Your task to perform on an android device: stop showing notifications on the lock screen Image 0: 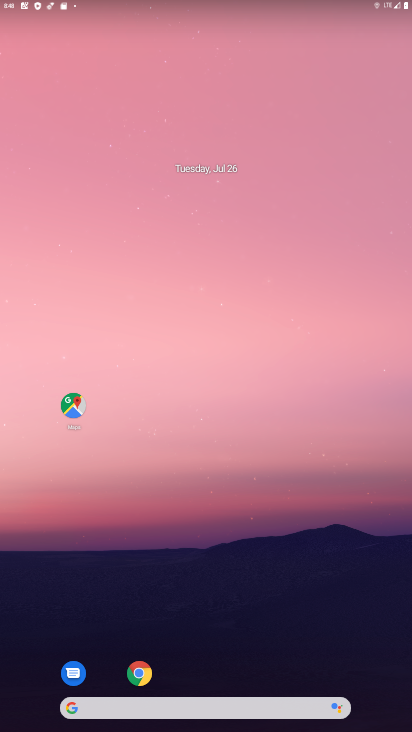
Step 0: drag from (204, 685) to (192, 11)
Your task to perform on an android device: stop showing notifications on the lock screen Image 1: 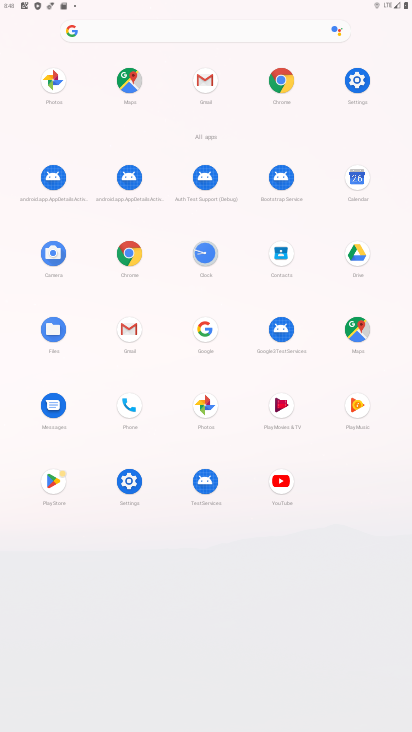
Step 1: click (365, 84)
Your task to perform on an android device: stop showing notifications on the lock screen Image 2: 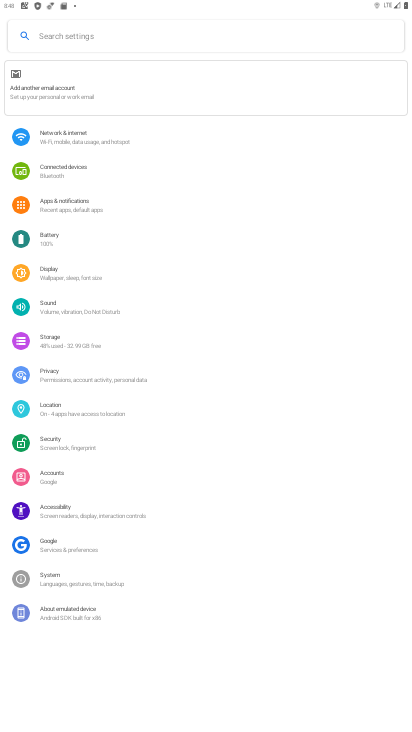
Step 2: click (68, 195)
Your task to perform on an android device: stop showing notifications on the lock screen Image 3: 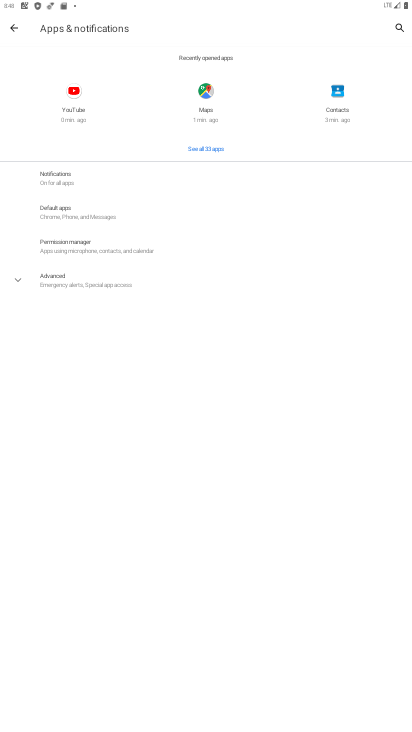
Step 3: click (64, 184)
Your task to perform on an android device: stop showing notifications on the lock screen Image 4: 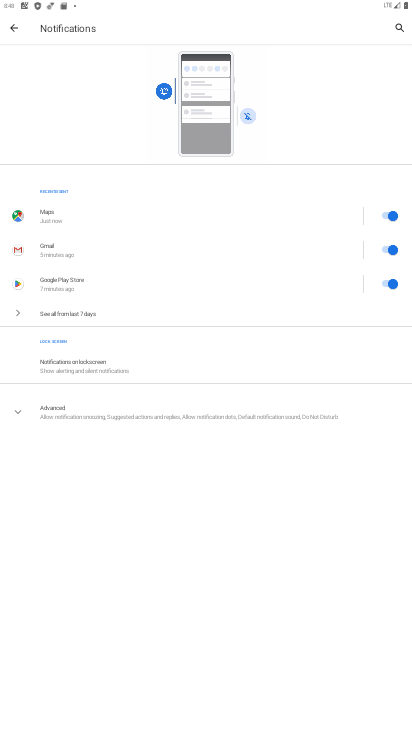
Step 4: click (74, 369)
Your task to perform on an android device: stop showing notifications on the lock screen Image 5: 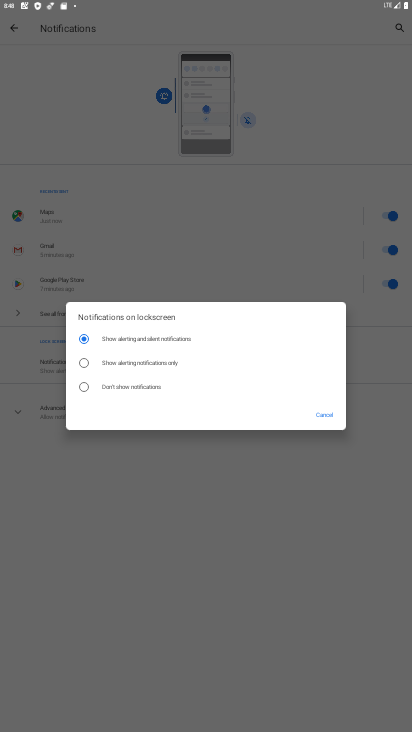
Step 5: click (82, 389)
Your task to perform on an android device: stop showing notifications on the lock screen Image 6: 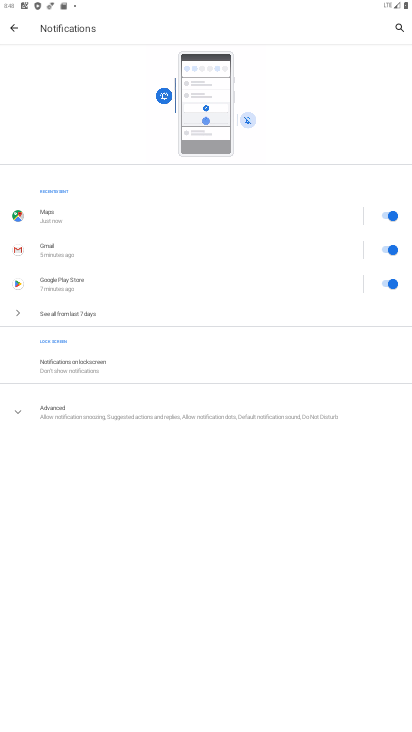
Step 6: task complete